Your task to perform on an android device: turn off data saver in the chrome app Image 0: 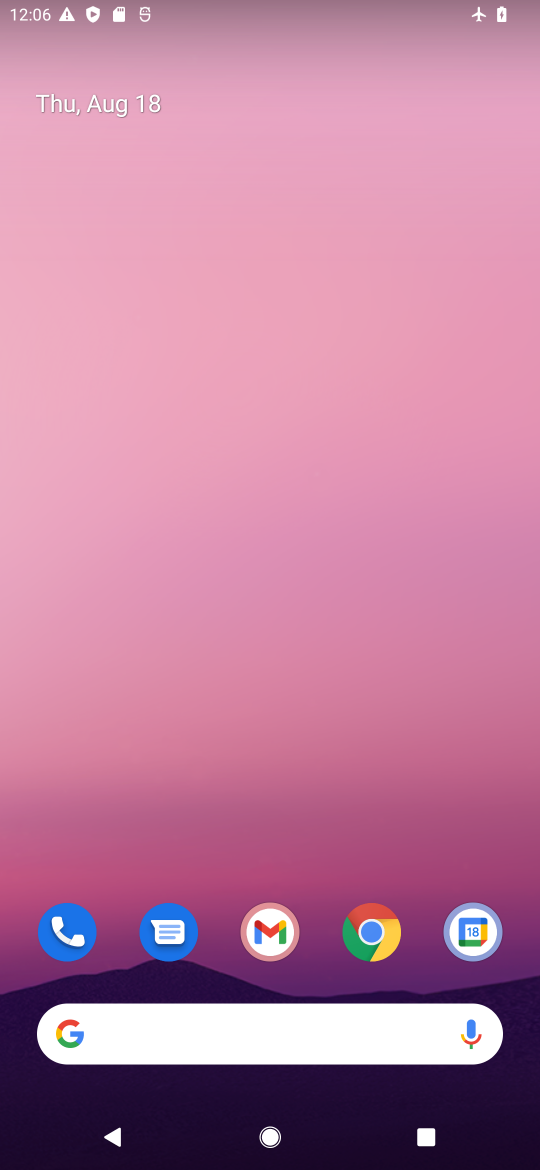
Step 0: click (372, 935)
Your task to perform on an android device: turn off data saver in the chrome app Image 1: 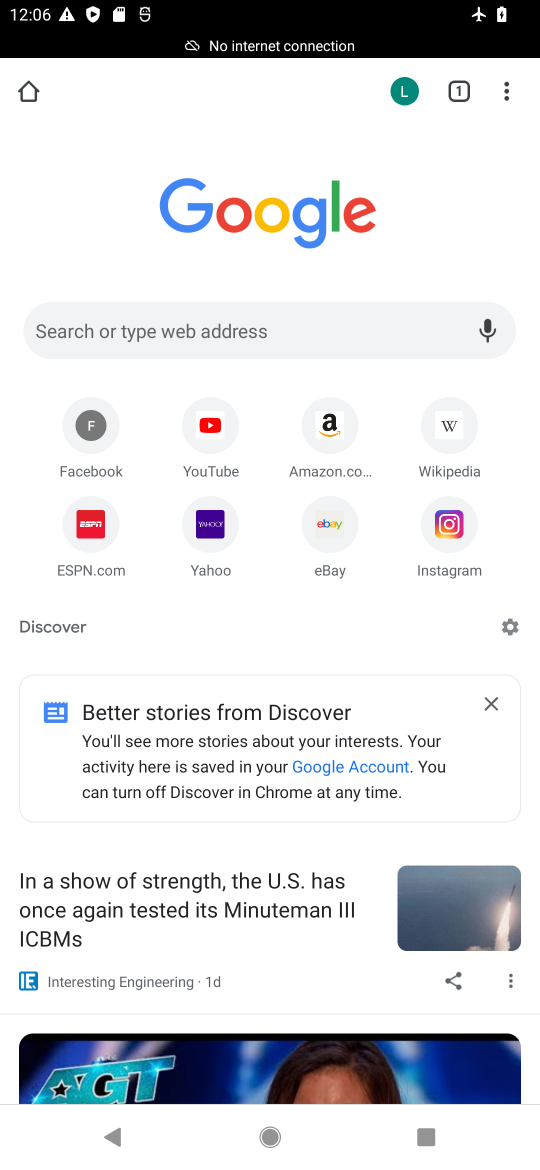
Step 1: click (507, 85)
Your task to perform on an android device: turn off data saver in the chrome app Image 2: 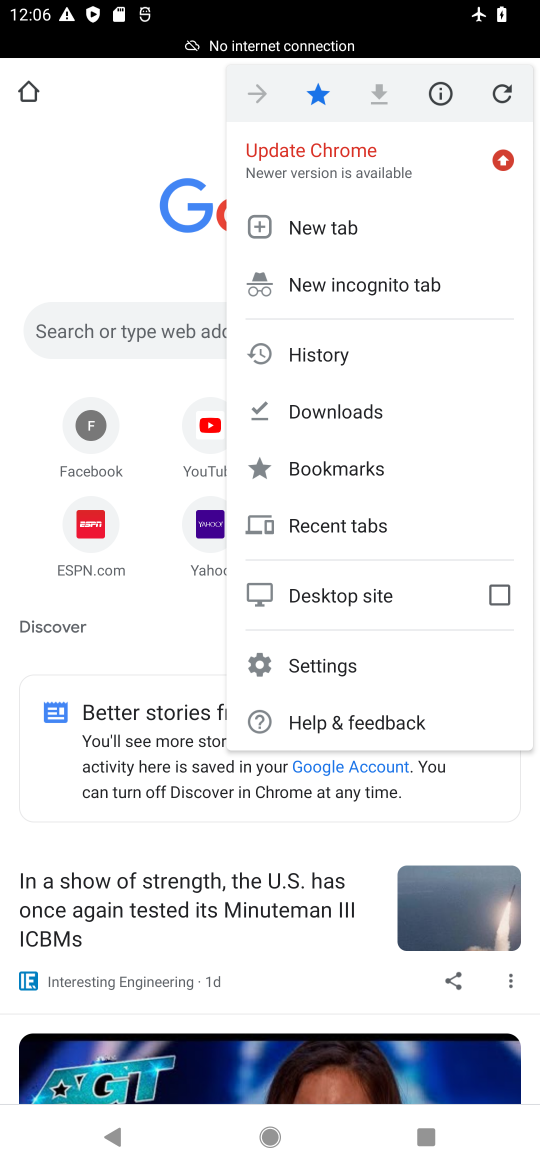
Step 2: click (342, 663)
Your task to perform on an android device: turn off data saver in the chrome app Image 3: 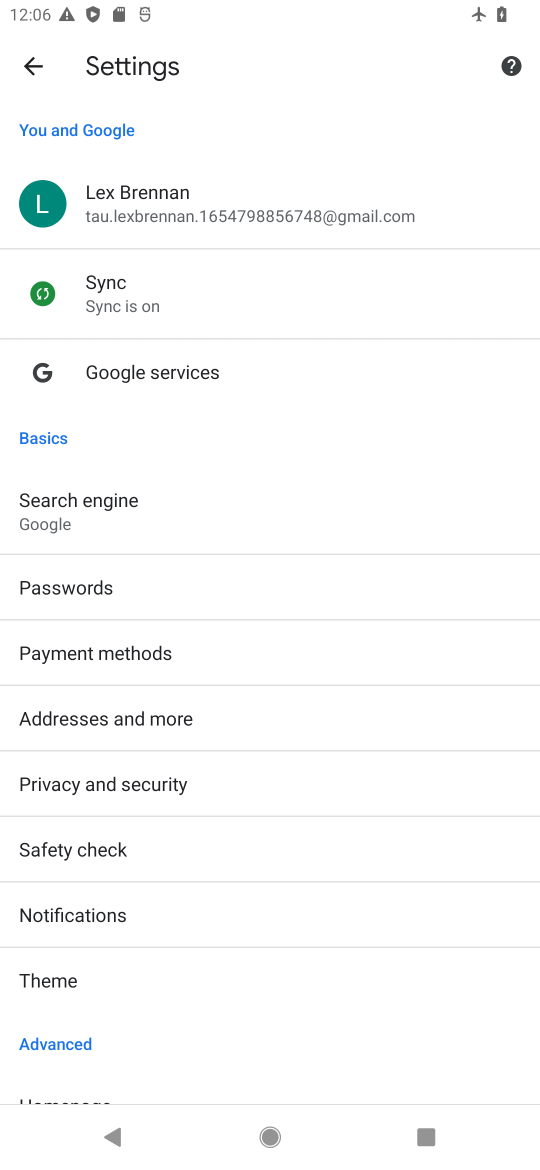
Step 3: drag from (244, 953) to (249, 409)
Your task to perform on an android device: turn off data saver in the chrome app Image 4: 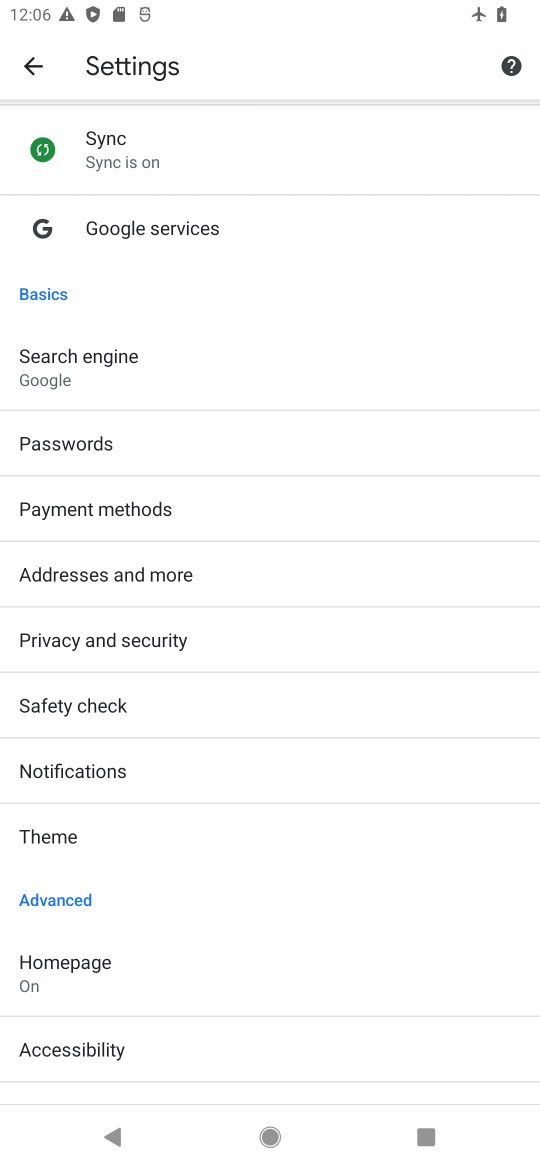
Step 4: drag from (256, 816) to (256, 351)
Your task to perform on an android device: turn off data saver in the chrome app Image 5: 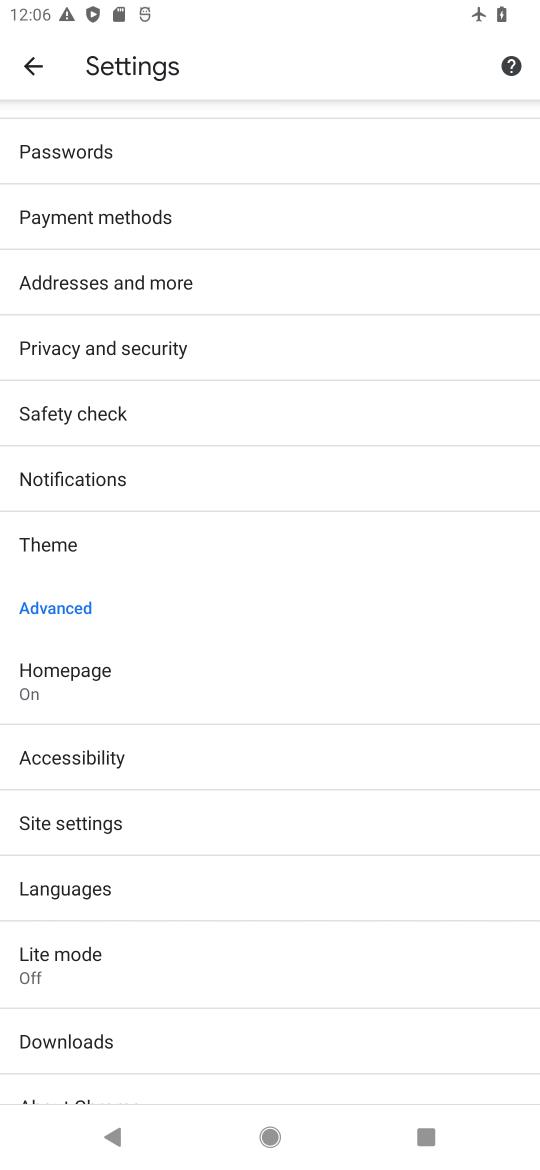
Step 5: drag from (229, 890) to (257, 462)
Your task to perform on an android device: turn off data saver in the chrome app Image 6: 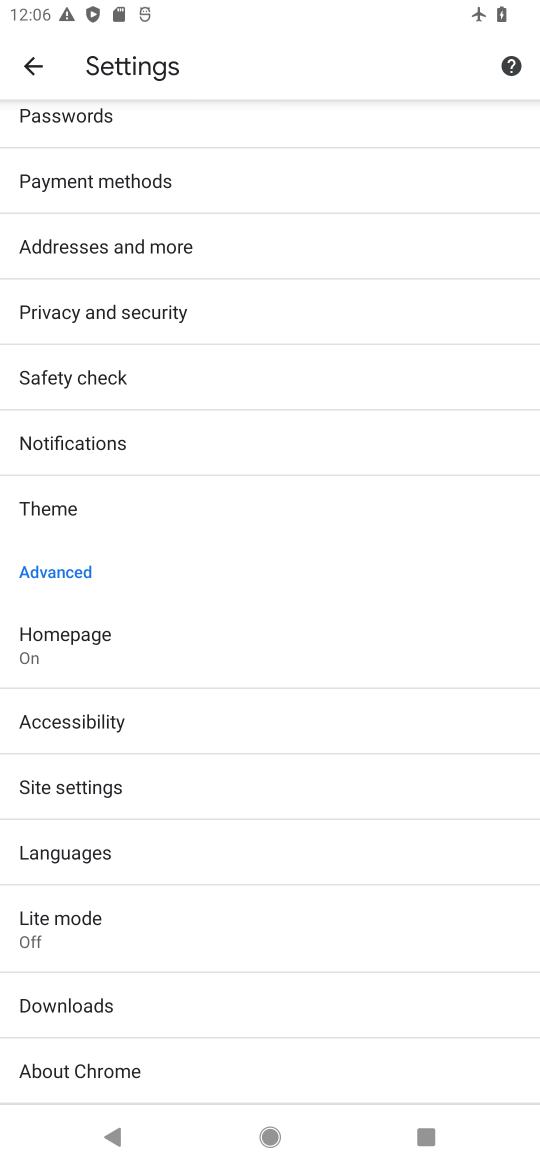
Step 6: click (68, 924)
Your task to perform on an android device: turn off data saver in the chrome app Image 7: 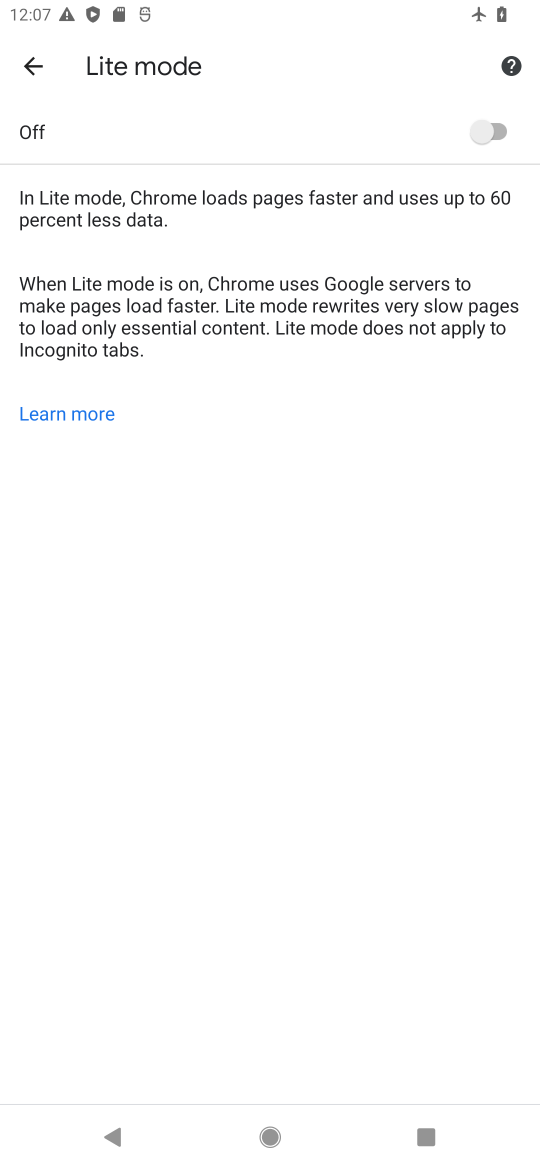
Step 7: task complete